Your task to perform on an android device: toggle wifi Image 0: 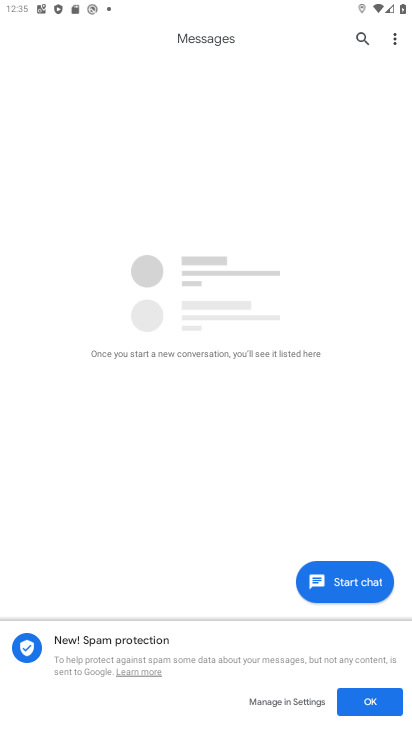
Step 0: press home button
Your task to perform on an android device: toggle wifi Image 1: 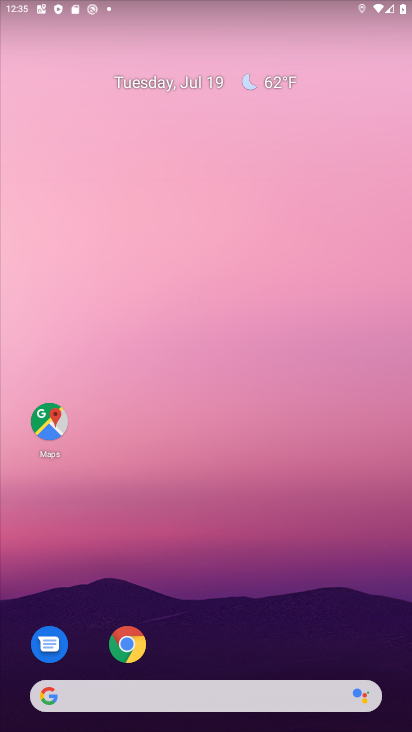
Step 1: drag from (225, 562) to (225, 2)
Your task to perform on an android device: toggle wifi Image 2: 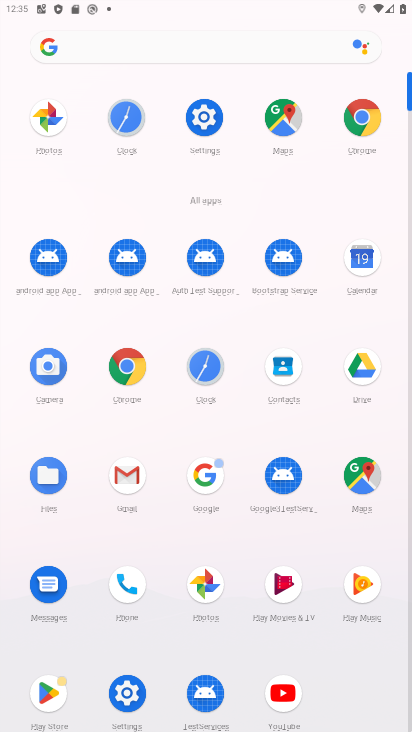
Step 2: click (214, 109)
Your task to perform on an android device: toggle wifi Image 3: 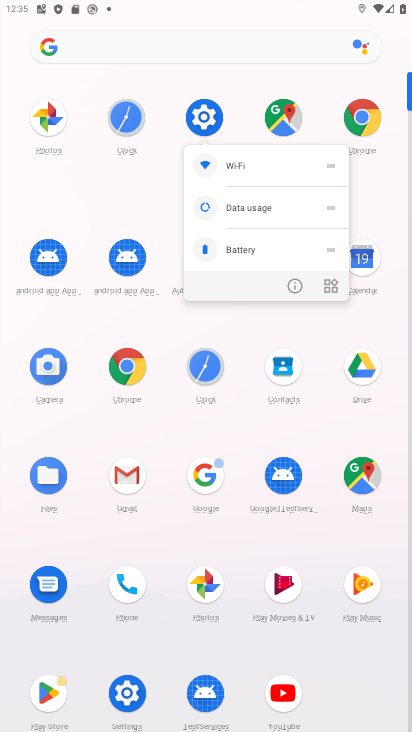
Step 3: click (200, 99)
Your task to perform on an android device: toggle wifi Image 4: 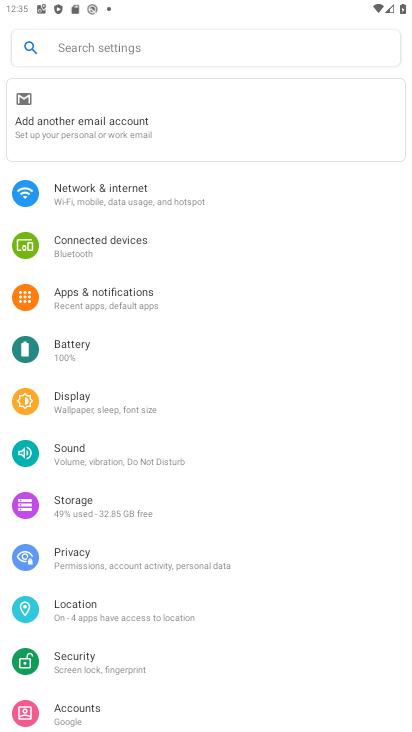
Step 4: click (112, 183)
Your task to perform on an android device: toggle wifi Image 5: 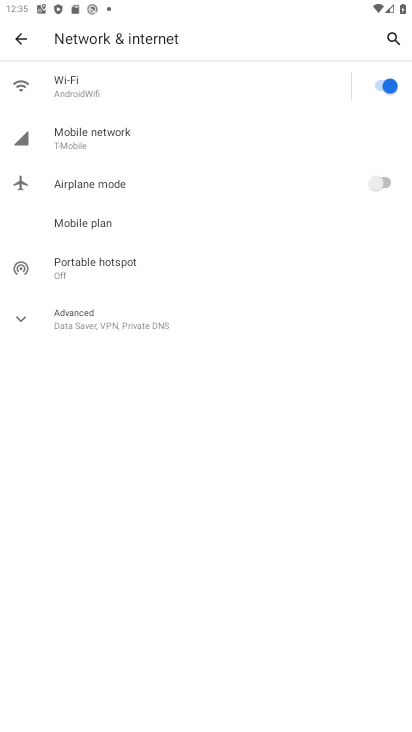
Step 5: click (387, 84)
Your task to perform on an android device: toggle wifi Image 6: 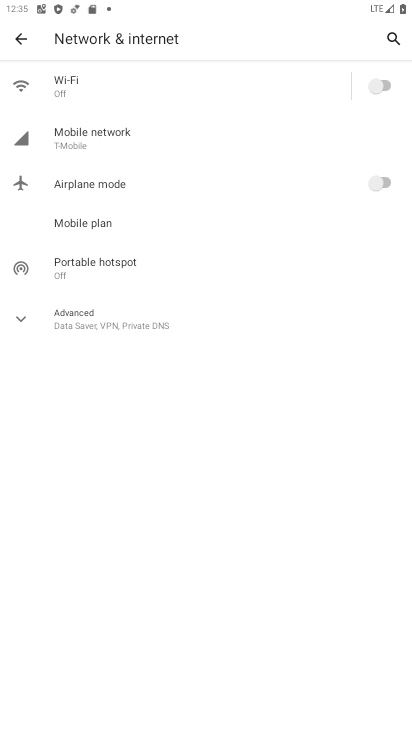
Step 6: task complete